Your task to perform on an android device: check google app version Image 0: 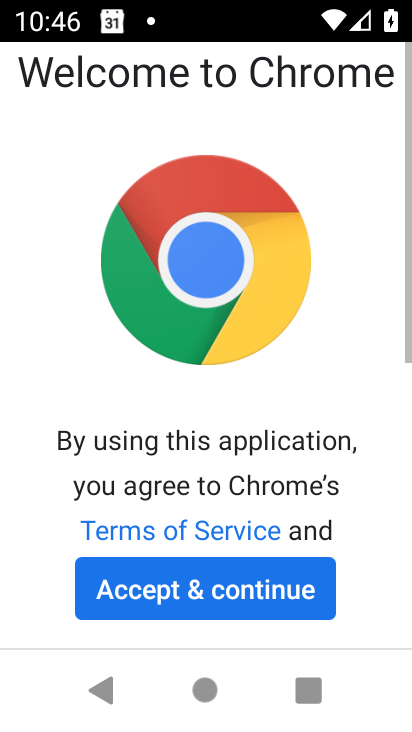
Step 0: press home button
Your task to perform on an android device: check google app version Image 1: 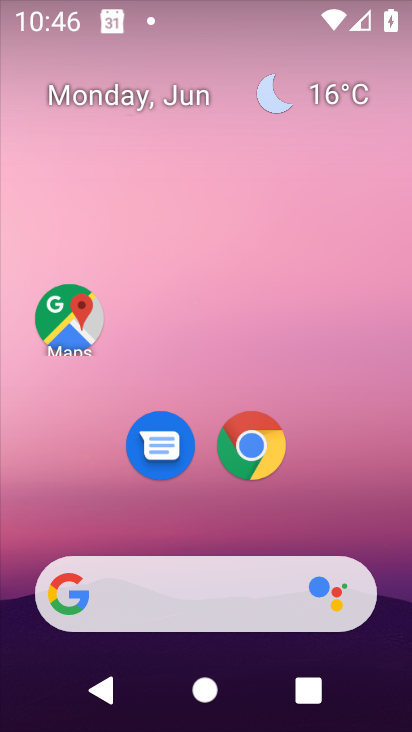
Step 1: drag from (221, 506) to (244, 127)
Your task to perform on an android device: check google app version Image 2: 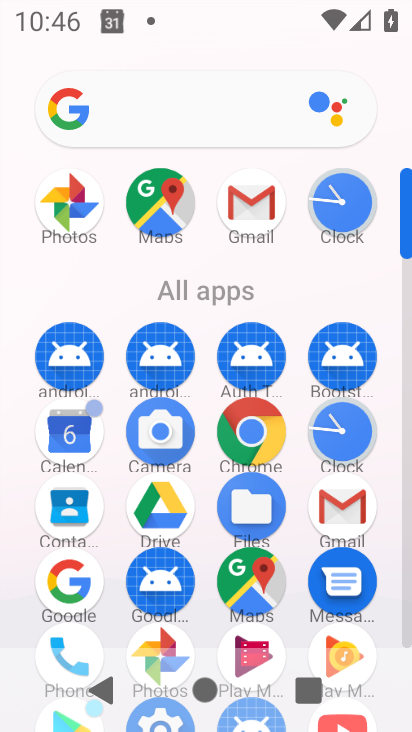
Step 2: click (71, 583)
Your task to perform on an android device: check google app version Image 3: 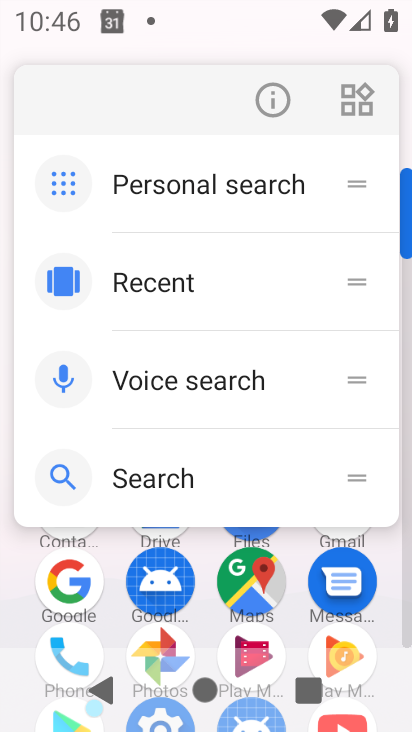
Step 3: click (272, 101)
Your task to perform on an android device: check google app version Image 4: 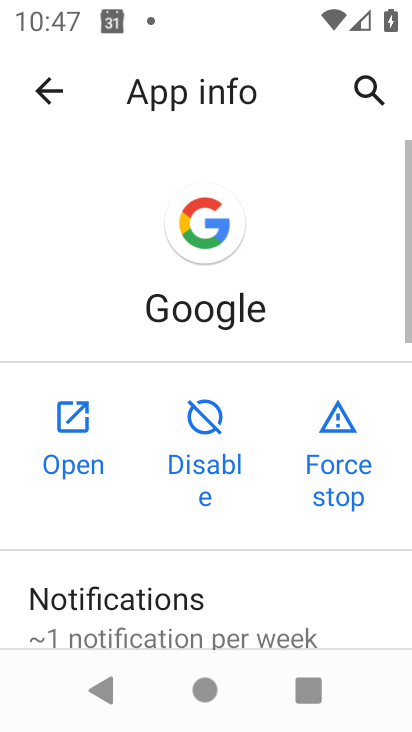
Step 4: drag from (344, 607) to (359, 139)
Your task to perform on an android device: check google app version Image 5: 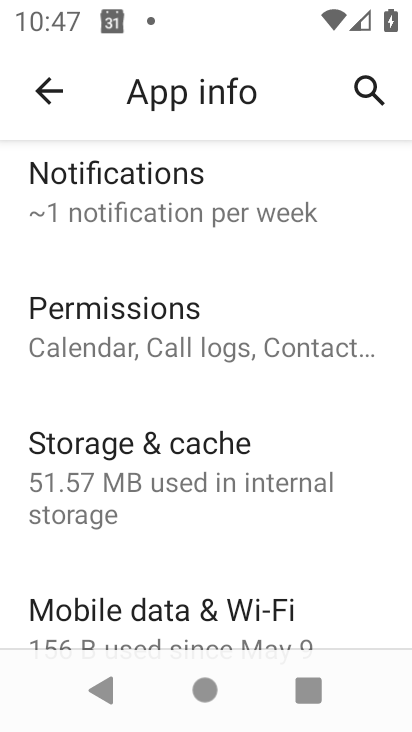
Step 5: drag from (368, 615) to (384, 211)
Your task to perform on an android device: check google app version Image 6: 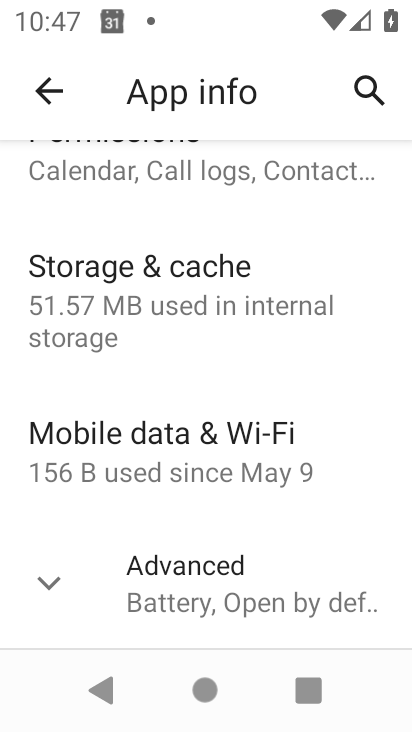
Step 6: click (241, 585)
Your task to perform on an android device: check google app version Image 7: 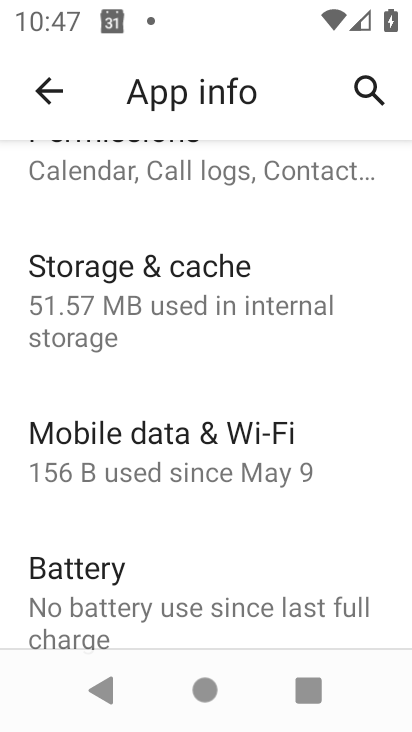
Step 7: task complete